Your task to perform on an android device: Go to ESPN.com Image 0: 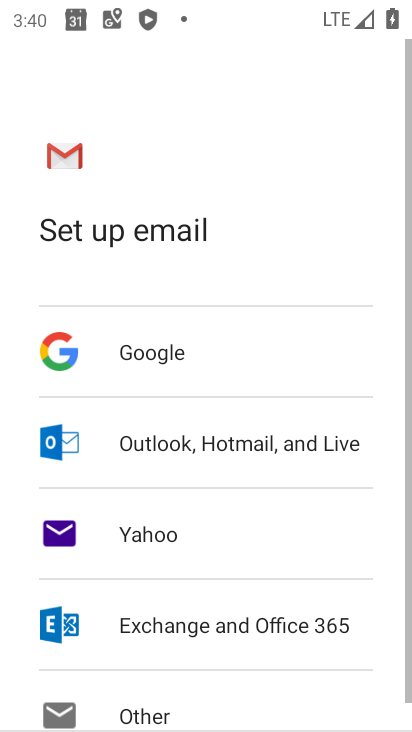
Step 0: press home button
Your task to perform on an android device: Go to ESPN.com Image 1: 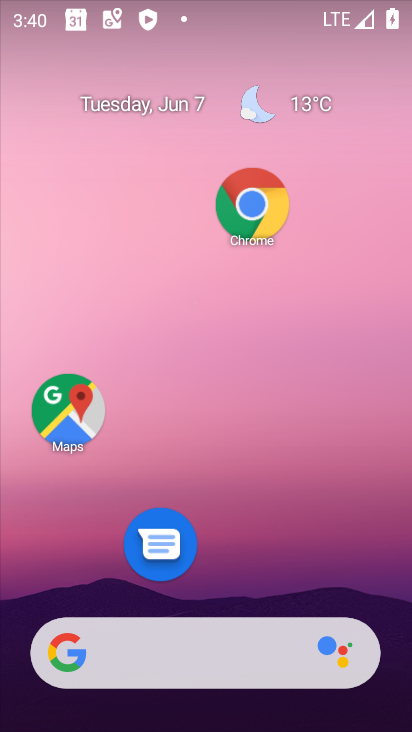
Step 1: click (249, 194)
Your task to perform on an android device: Go to ESPN.com Image 2: 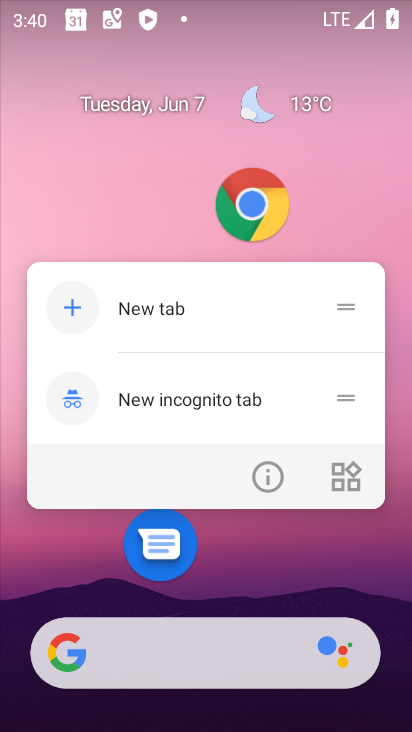
Step 2: click (249, 194)
Your task to perform on an android device: Go to ESPN.com Image 3: 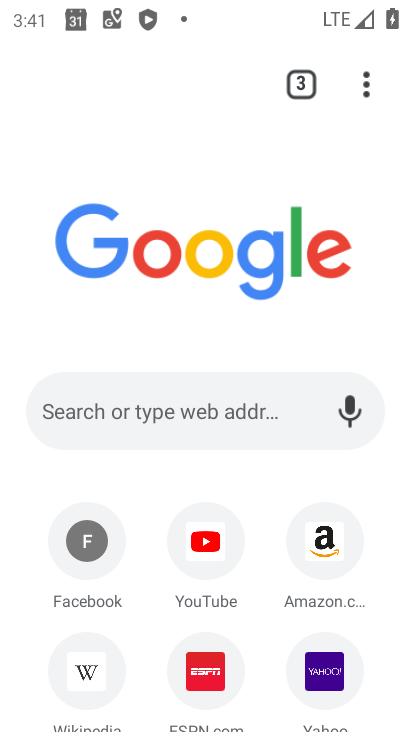
Step 3: click (204, 656)
Your task to perform on an android device: Go to ESPN.com Image 4: 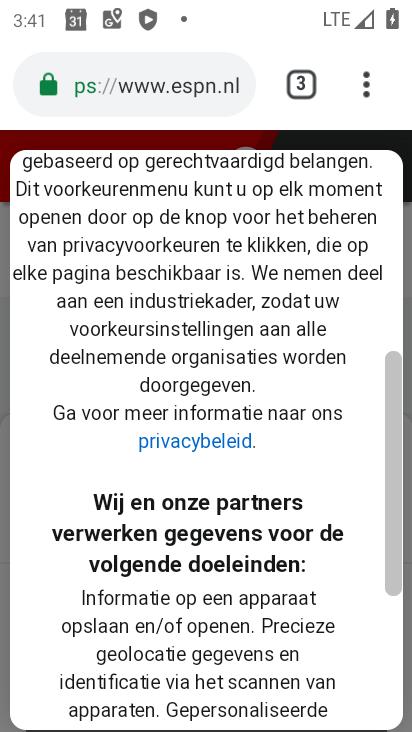
Step 4: drag from (194, 638) to (250, 183)
Your task to perform on an android device: Go to ESPN.com Image 5: 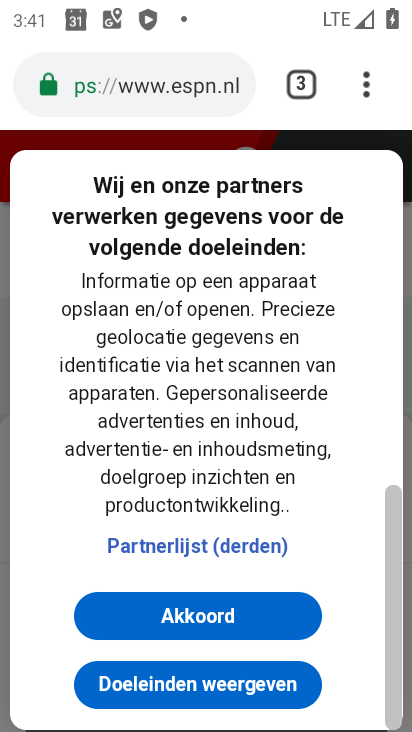
Step 5: click (199, 619)
Your task to perform on an android device: Go to ESPN.com Image 6: 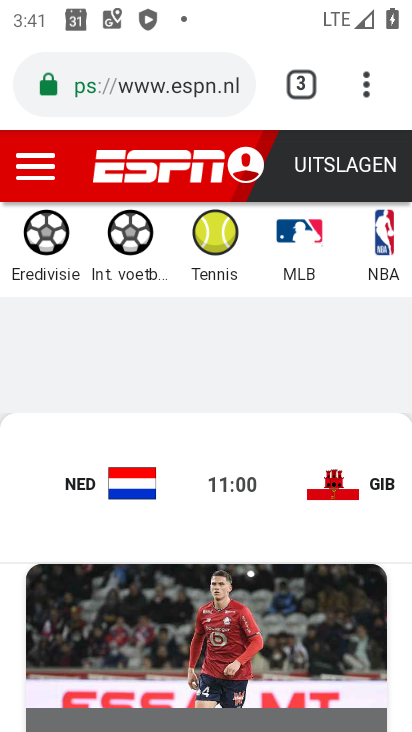
Step 6: task complete